Your task to perform on an android device: see sites visited before in the chrome app Image 0: 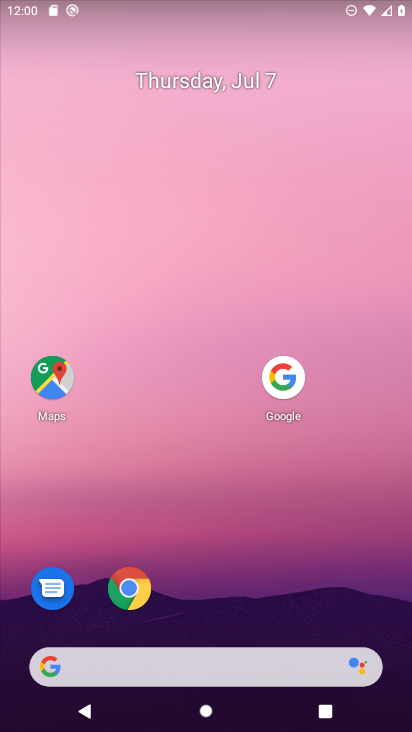
Step 0: click (125, 595)
Your task to perform on an android device: see sites visited before in the chrome app Image 1: 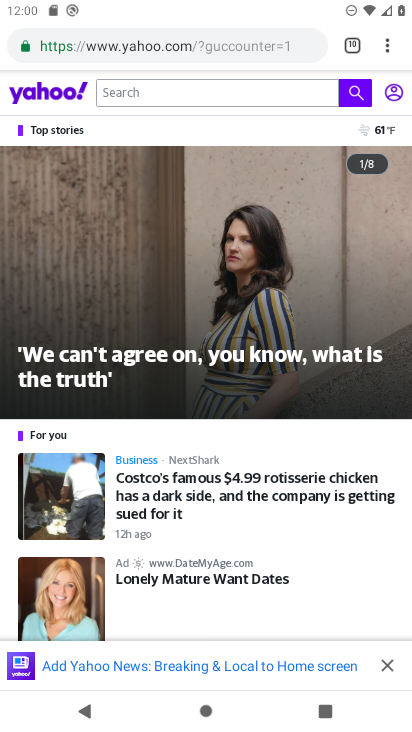
Step 1: click (387, 60)
Your task to perform on an android device: see sites visited before in the chrome app Image 2: 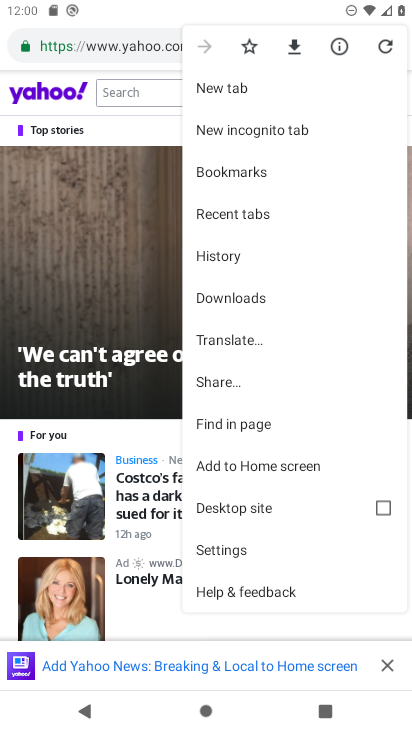
Step 2: click (241, 222)
Your task to perform on an android device: see sites visited before in the chrome app Image 3: 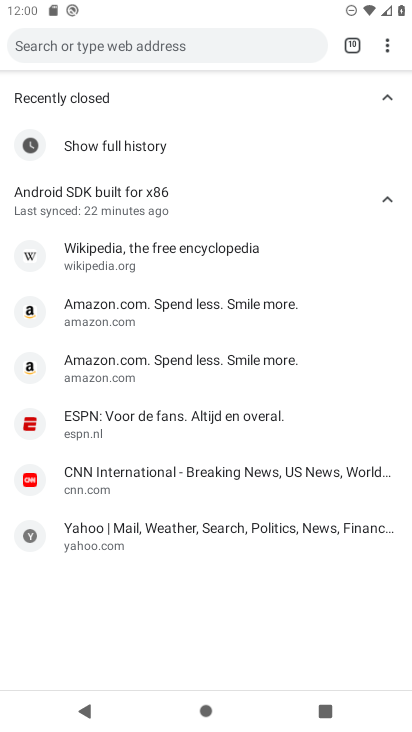
Step 3: task complete